Your task to perform on an android device: clear history in the chrome app Image 0: 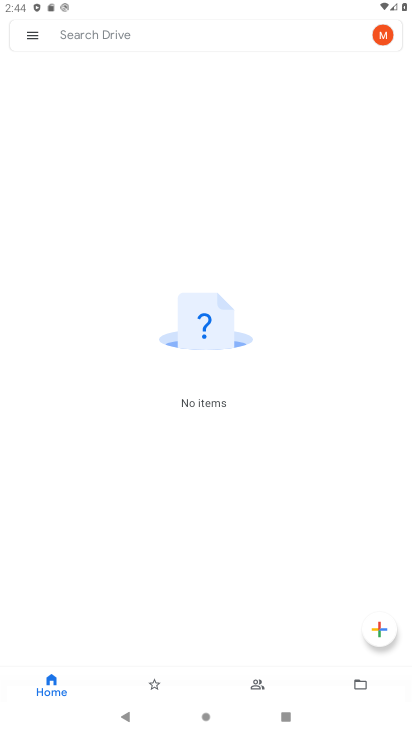
Step 0: press home button
Your task to perform on an android device: clear history in the chrome app Image 1: 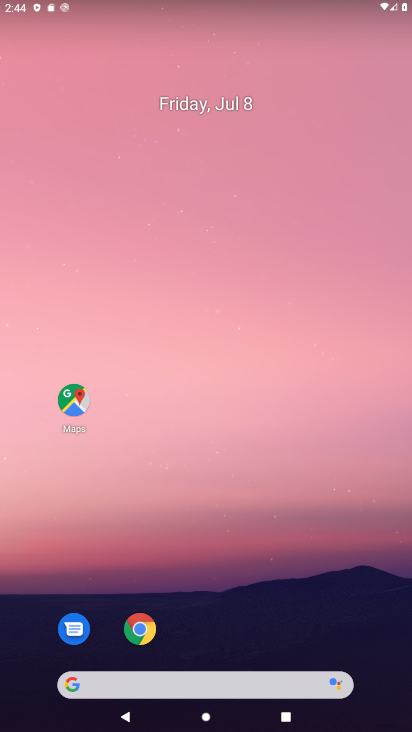
Step 1: click (52, 394)
Your task to perform on an android device: clear history in the chrome app Image 2: 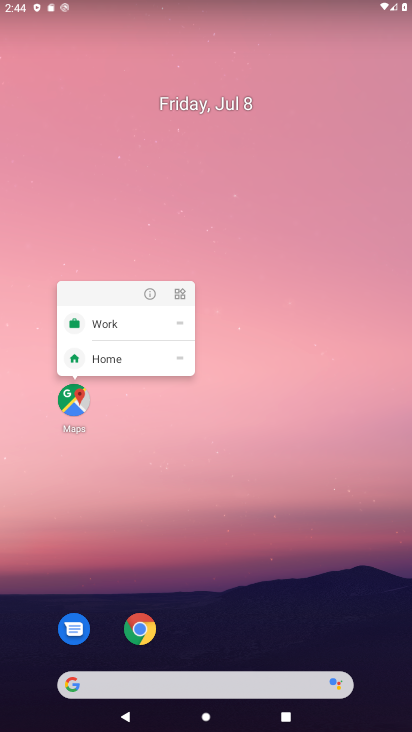
Step 2: click (129, 629)
Your task to perform on an android device: clear history in the chrome app Image 3: 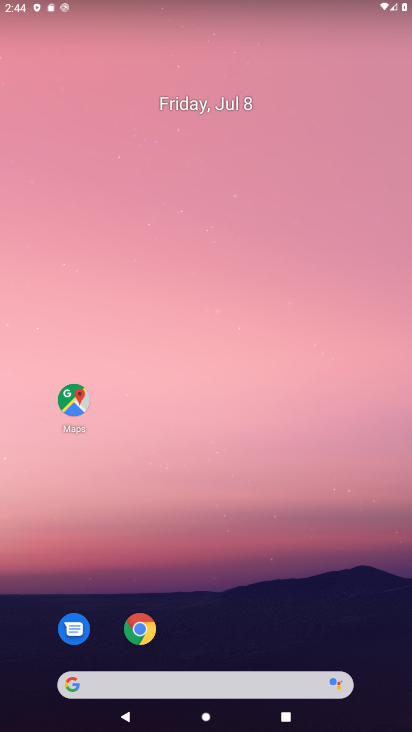
Step 3: click (136, 628)
Your task to perform on an android device: clear history in the chrome app Image 4: 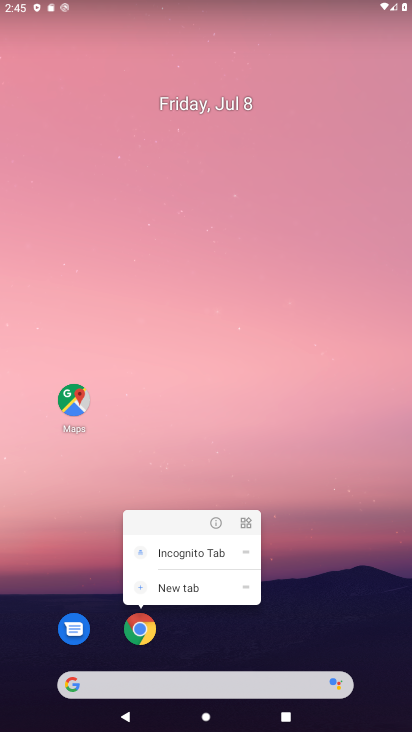
Step 4: click (142, 625)
Your task to perform on an android device: clear history in the chrome app Image 5: 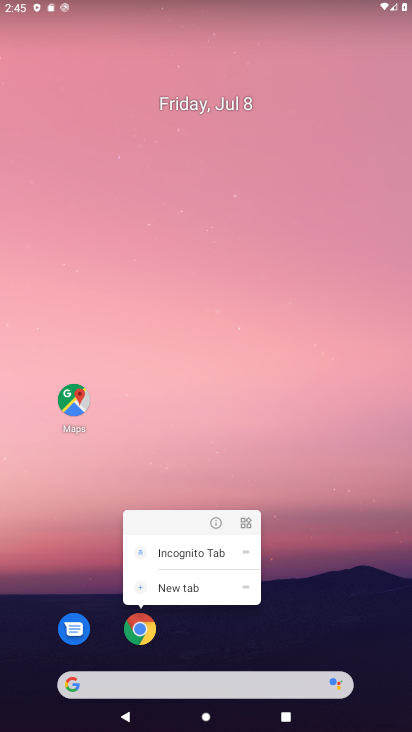
Step 5: click (147, 625)
Your task to perform on an android device: clear history in the chrome app Image 6: 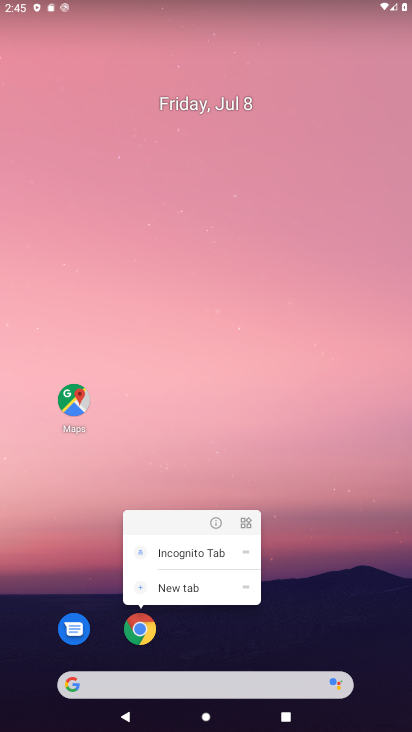
Step 6: task complete